Your task to perform on an android device: change the clock display to digital Image 0: 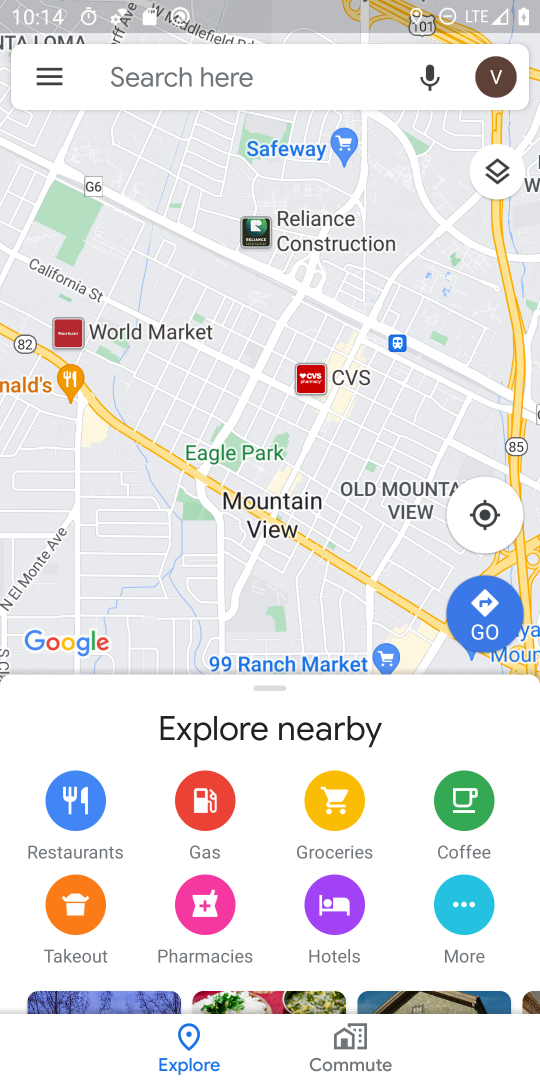
Step 0: press home button
Your task to perform on an android device: change the clock display to digital Image 1: 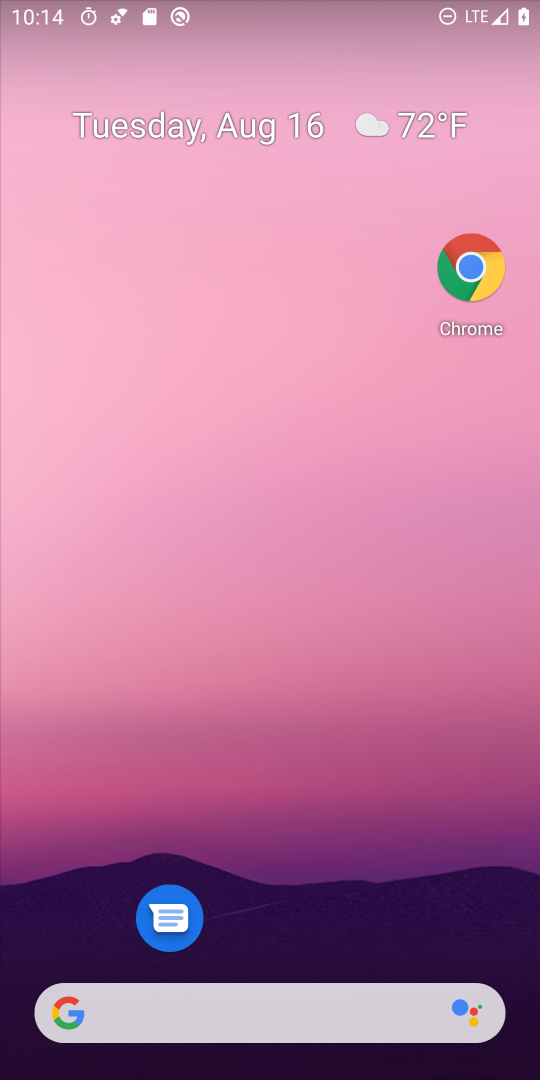
Step 1: drag from (183, 929) to (206, 465)
Your task to perform on an android device: change the clock display to digital Image 2: 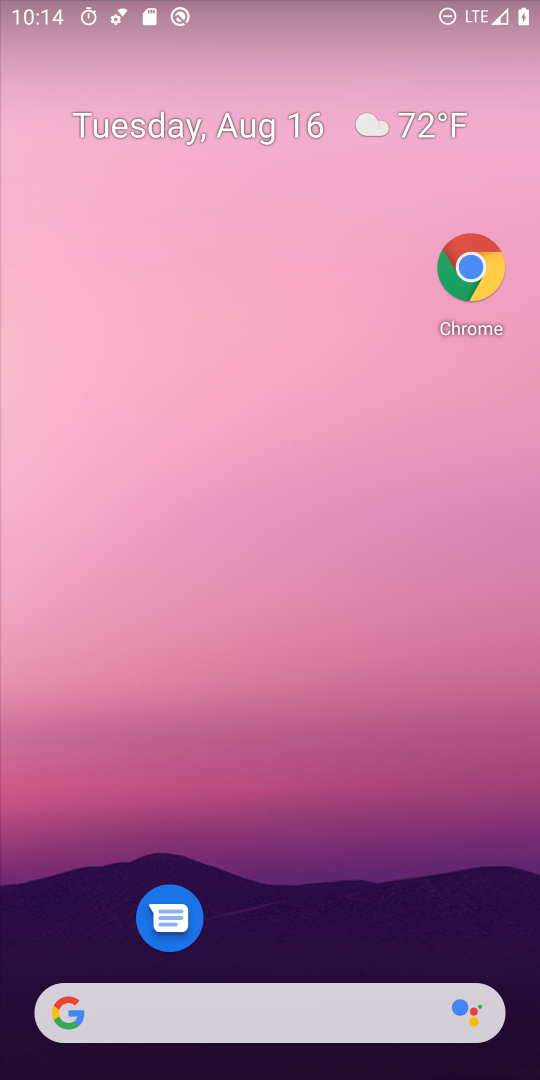
Step 2: drag from (300, 965) to (332, 422)
Your task to perform on an android device: change the clock display to digital Image 3: 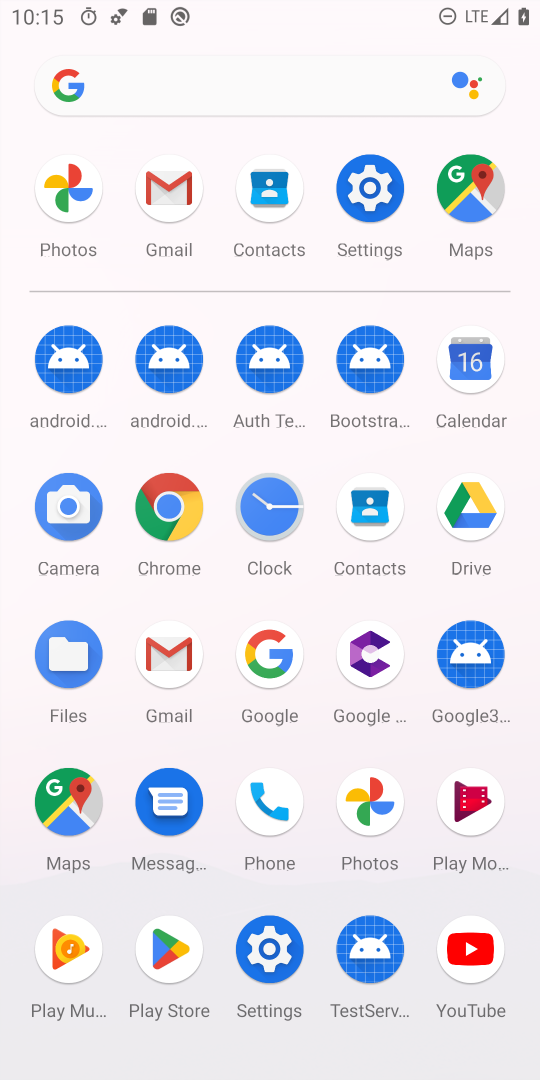
Step 3: click (279, 528)
Your task to perform on an android device: change the clock display to digital Image 4: 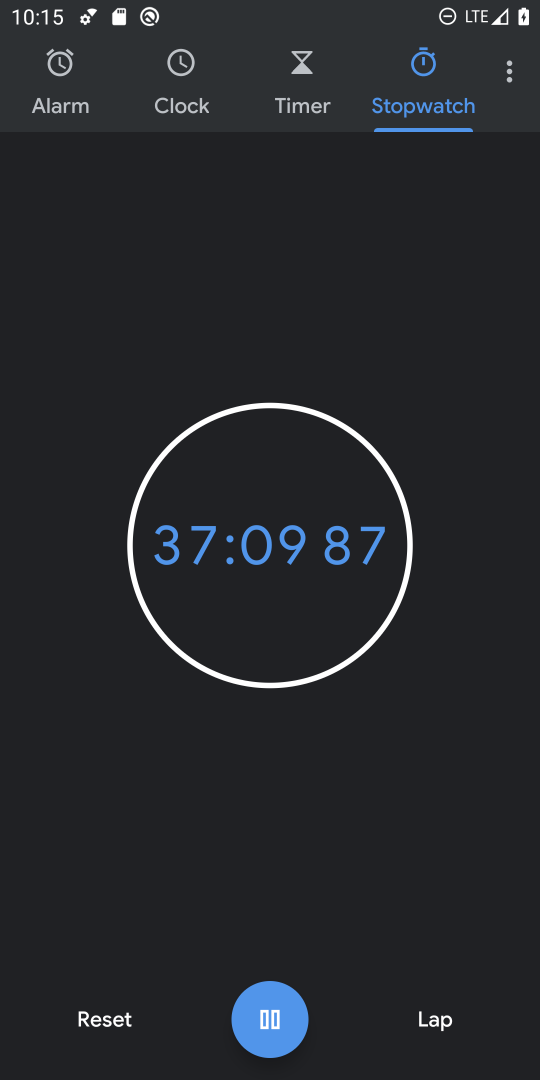
Step 4: click (508, 86)
Your task to perform on an android device: change the clock display to digital Image 5: 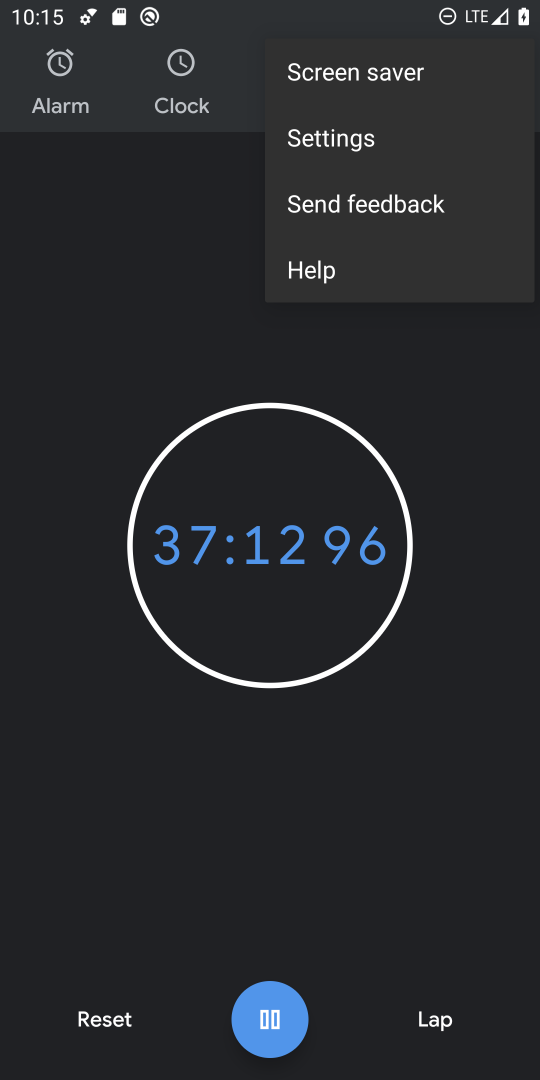
Step 5: click (341, 157)
Your task to perform on an android device: change the clock display to digital Image 6: 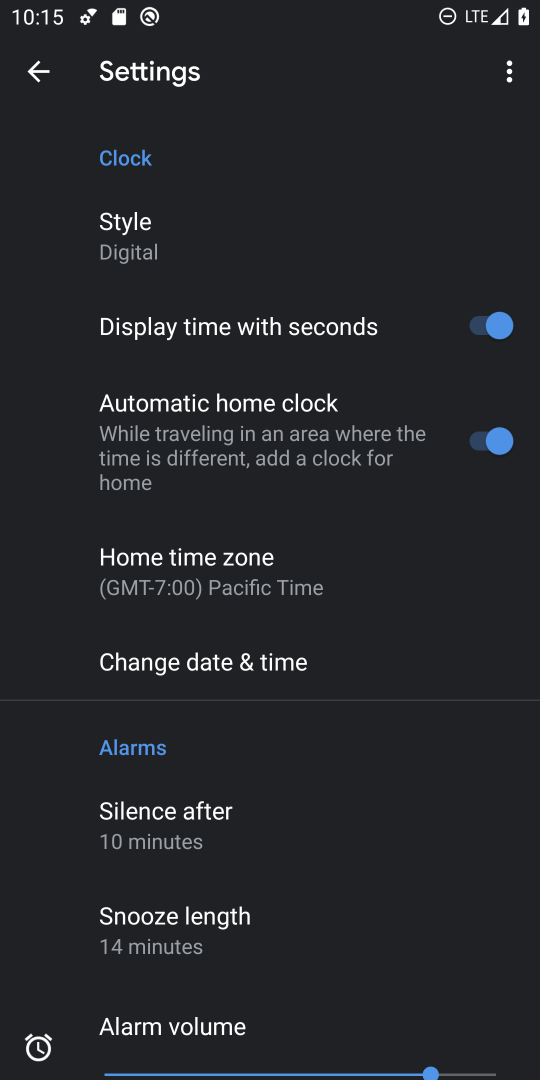
Step 6: click (172, 235)
Your task to perform on an android device: change the clock display to digital Image 7: 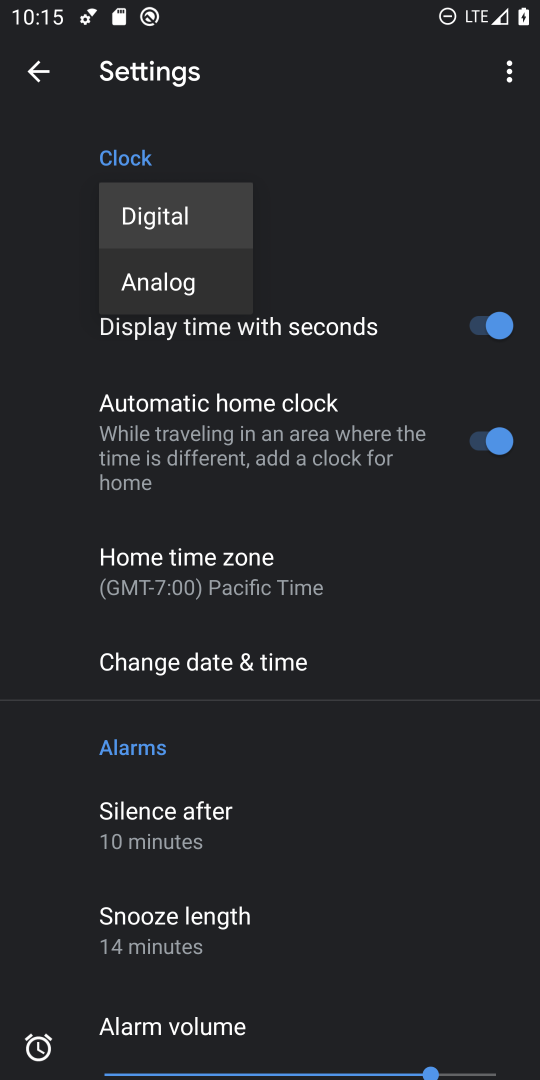
Step 7: task complete